Your task to perform on an android device: Open settings on Google Maps Image 0: 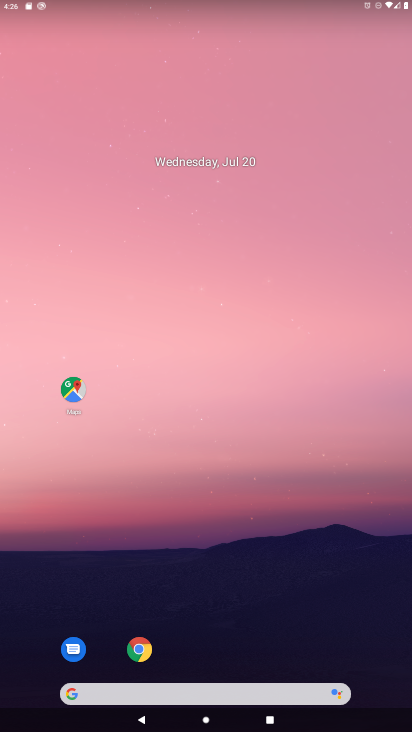
Step 0: click (72, 390)
Your task to perform on an android device: Open settings on Google Maps Image 1: 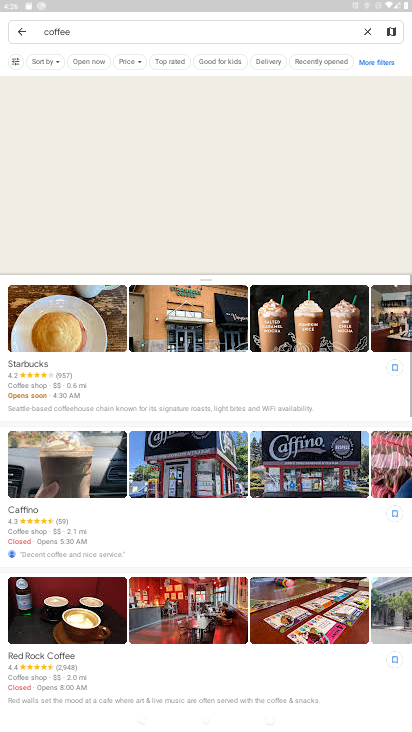
Step 1: press back button
Your task to perform on an android device: Open settings on Google Maps Image 2: 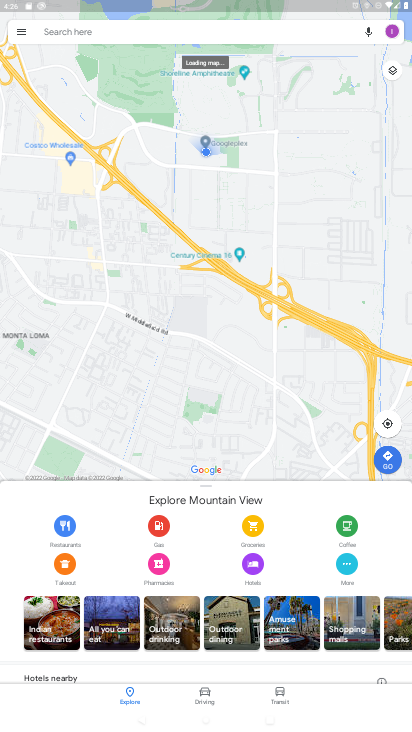
Step 2: click (19, 29)
Your task to perform on an android device: Open settings on Google Maps Image 3: 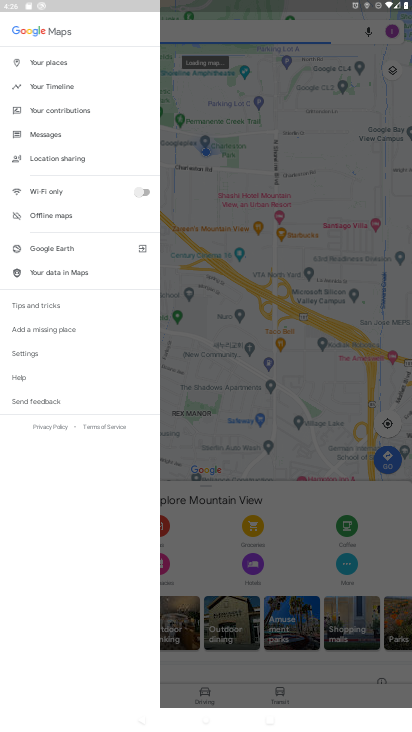
Step 3: click (31, 354)
Your task to perform on an android device: Open settings on Google Maps Image 4: 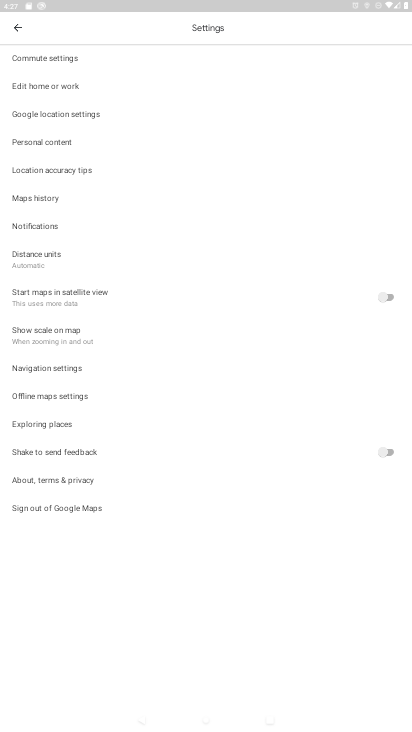
Step 4: task complete